Your task to perform on an android device: check android version Image 0: 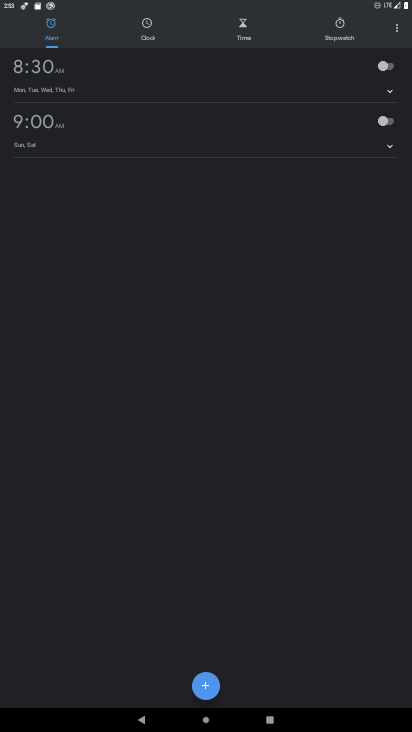
Step 0: press home button
Your task to perform on an android device: check android version Image 1: 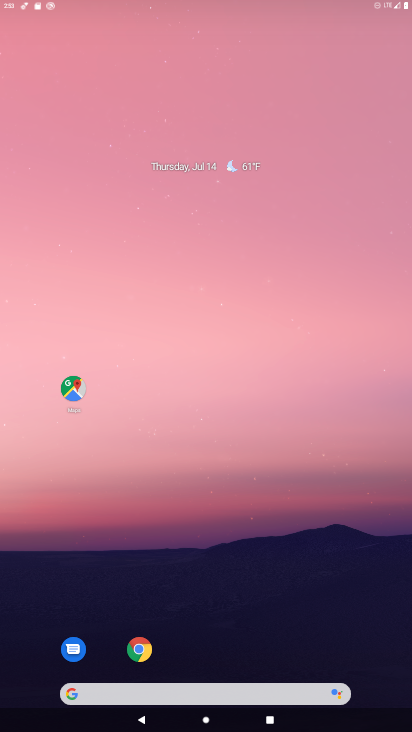
Step 1: drag from (301, 587) to (350, 5)
Your task to perform on an android device: check android version Image 2: 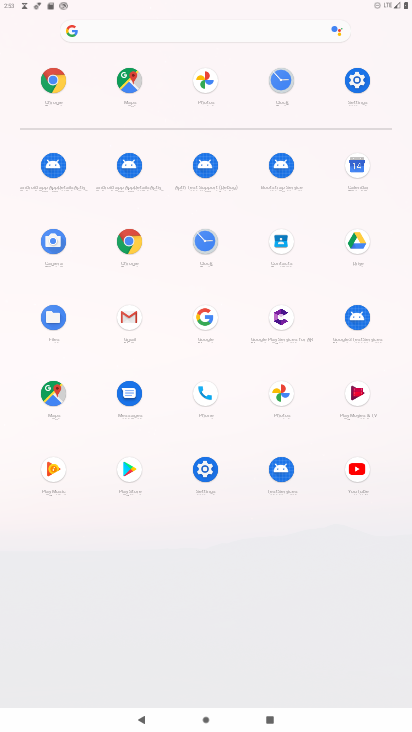
Step 2: click (353, 80)
Your task to perform on an android device: check android version Image 3: 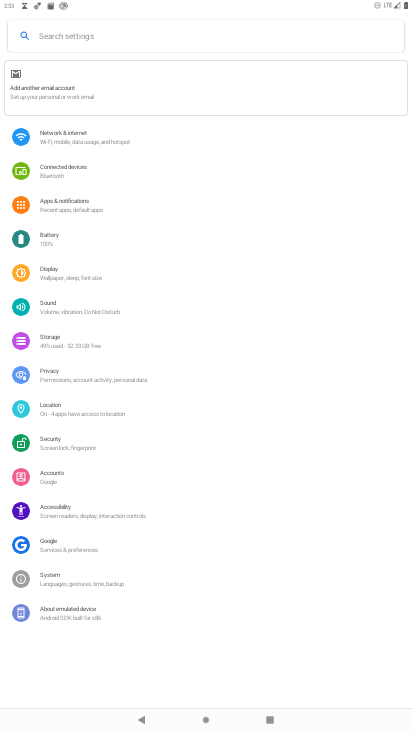
Step 3: click (122, 610)
Your task to perform on an android device: check android version Image 4: 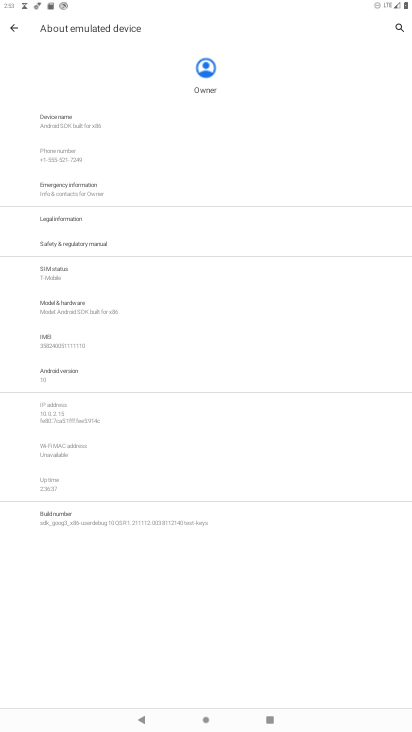
Step 4: task complete